Your task to perform on an android device: Do I have any events today? Image 0: 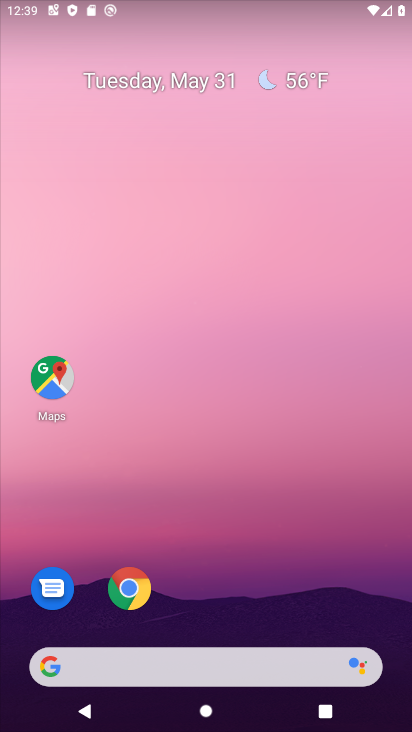
Step 0: drag from (193, 613) to (224, 138)
Your task to perform on an android device: Do I have any events today? Image 1: 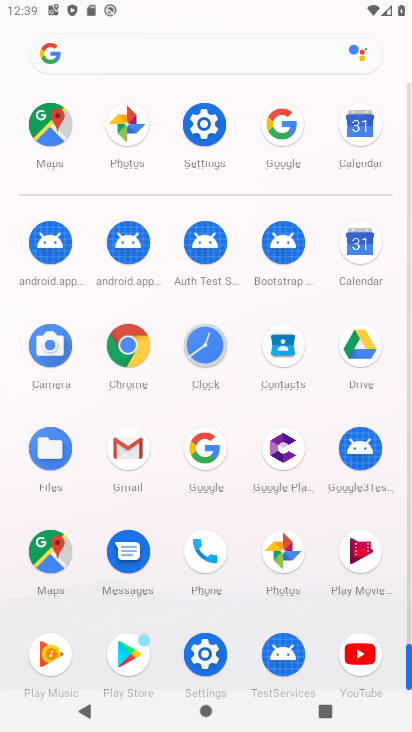
Step 1: click (359, 164)
Your task to perform on an android device: Do I have any events today? Image 2: 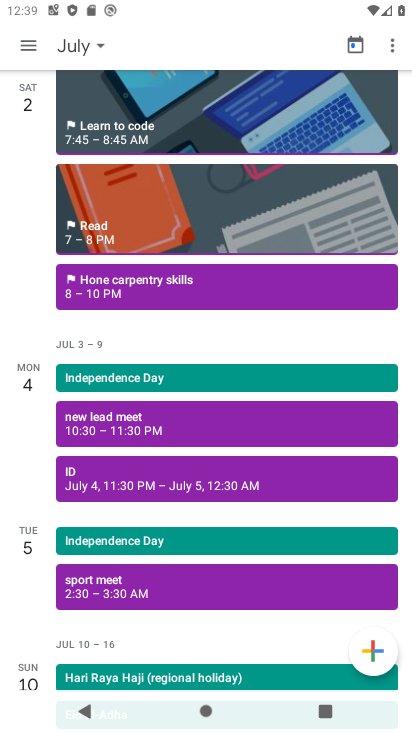
Step 2: drag from (197, 243) to (195, 577)
Your task to perform on an android device: Do I have any events today? Image 3: 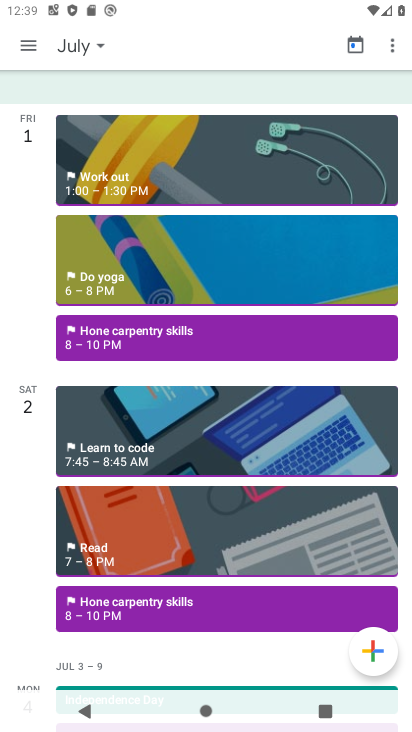
Step 3: drag from (104, 209) to (91, 460)
Your task to perform on an android device: Do I have any events today? Image 4: 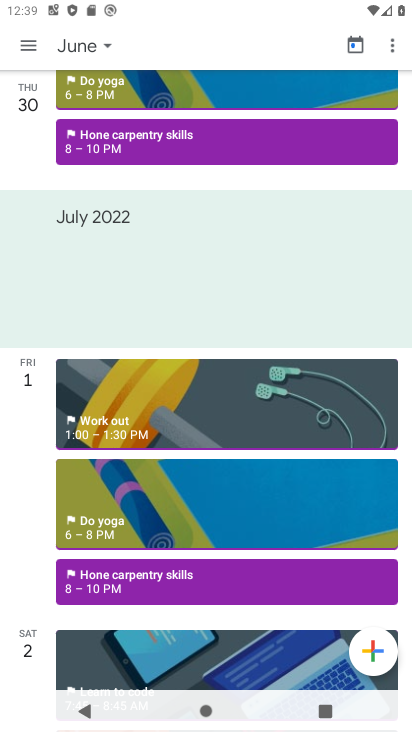
Step 4: drag from (95, 246) to (113, 490)
Your task to perform on an android device: Do I have any events today? Image 5: 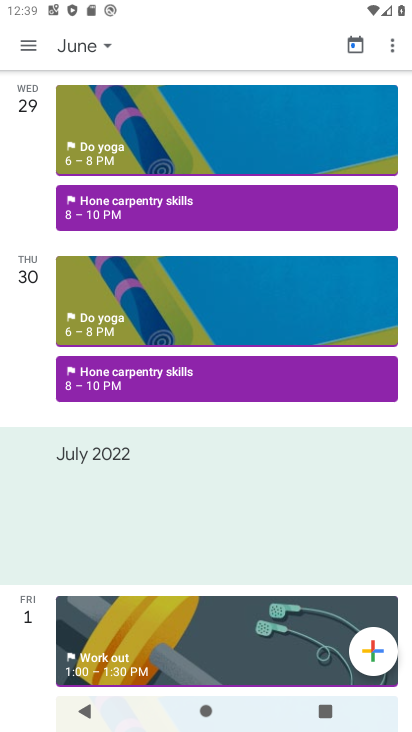
Step 5: drag from (182, 277) to (178, 617)
Your task to perform on an android device: Do I have any events today? Image 6: 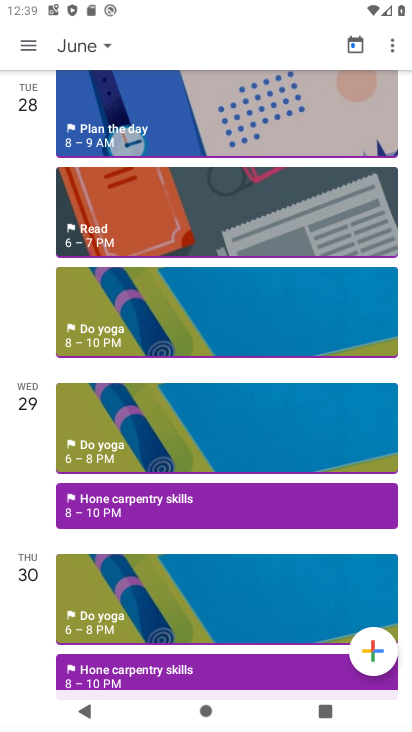
Step 6: drag from (160, 220) to (171, 620)
Your task to perform on an android device: Do I have any events today? Image 7: 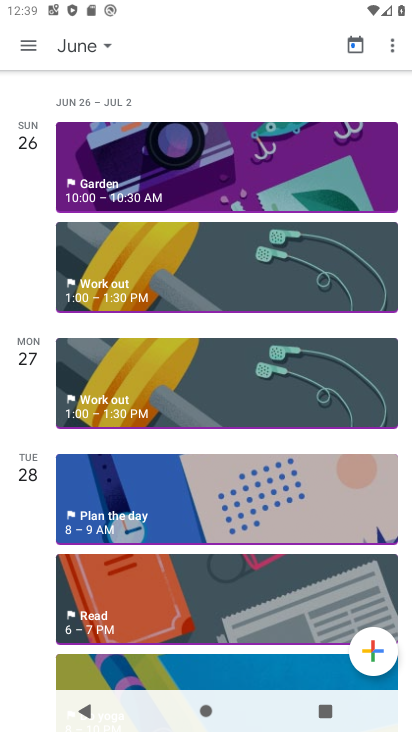
Step 7: click (78, 51)
Your task to perform on an android device: Do I have any events today? Image 8: 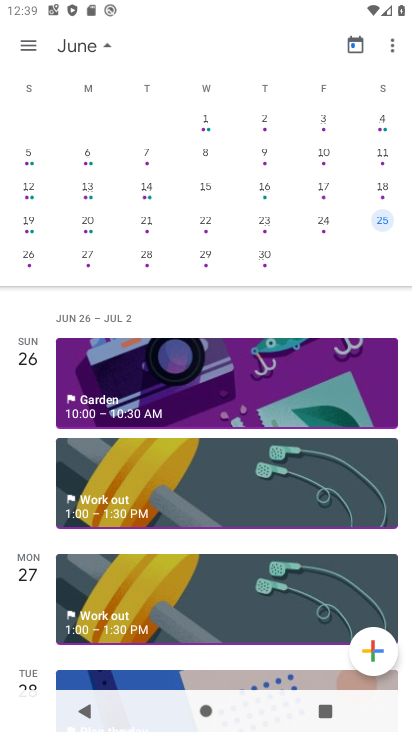
Step 8: drag from (52, 192) to (406, 213)
Your task to perform on an android device: Do I have any events today? Image 9: 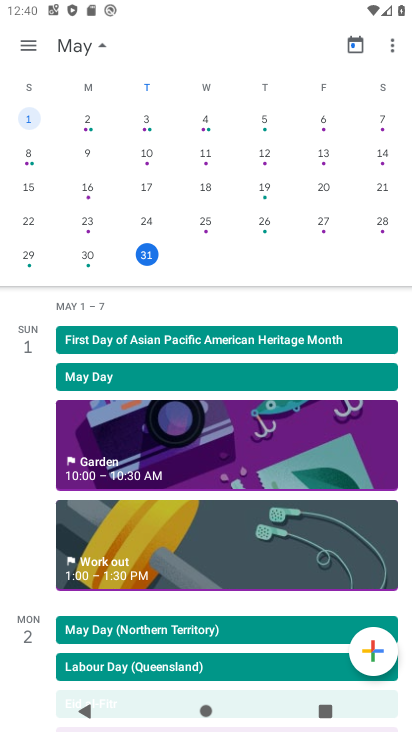
Step 9: click (147, 252)
Your task to perform on an android device: Do I have any events today? Image 10: 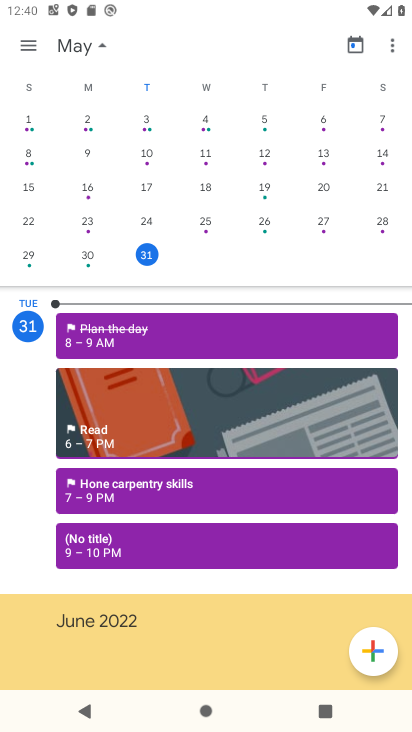
Step 10: task complete